Your task to perform on an android device: check storage Image 0: 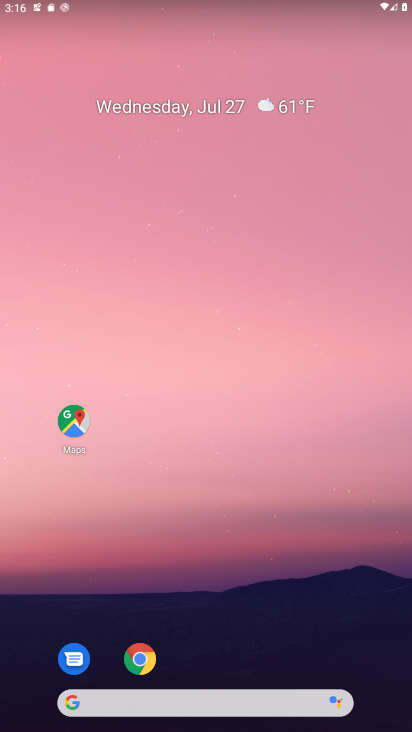
Step 0: drag from (207, 662) to (112, 107)
Your task to perform on an android device: check storage Image 1: 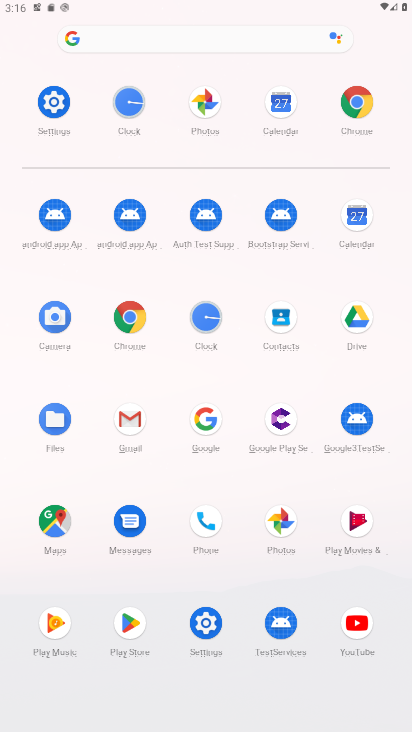
Step 1: click (201, 616)
Your task to perform on an android device: check storage Image 2: 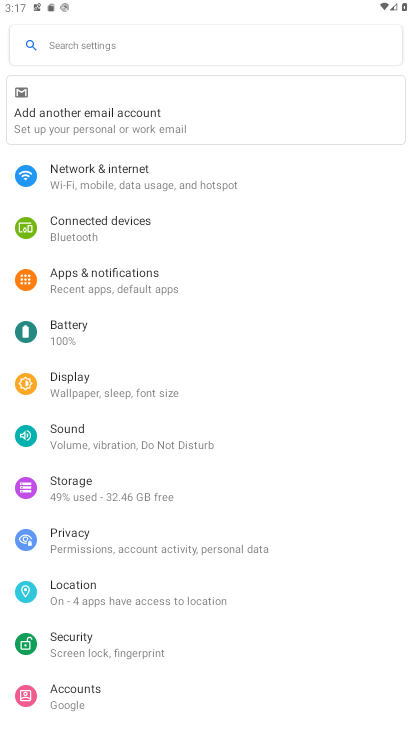
Step 2: click (94, 506)
Your task to perform on an android device: check storage Image 3: 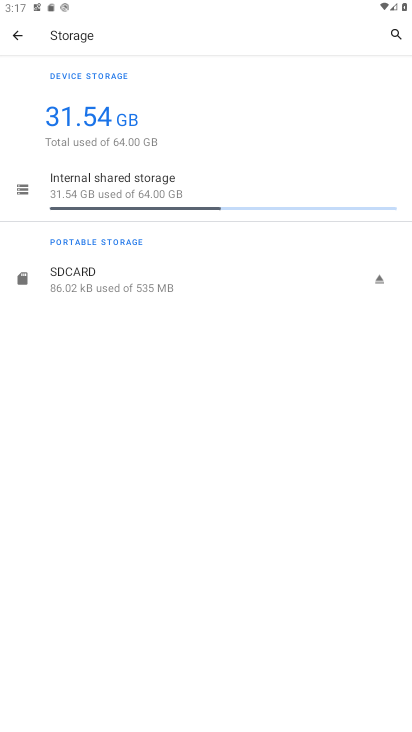
Step 3: task complete